Your task to perform on an android device: Go to network settings Image 0: 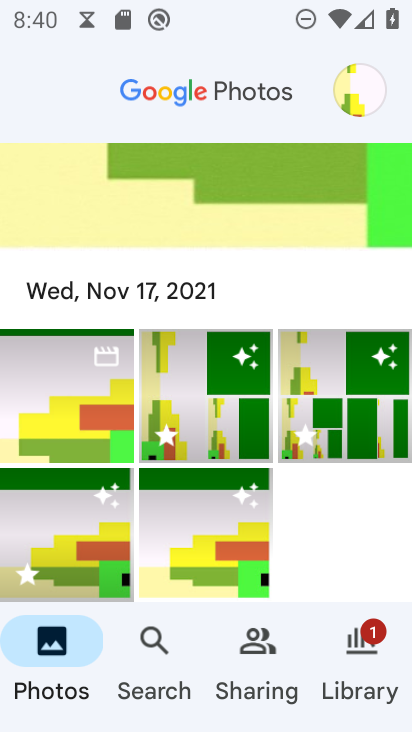
Step 0: press home button
Your task to perform on an android device: Go to network settings Image 1: 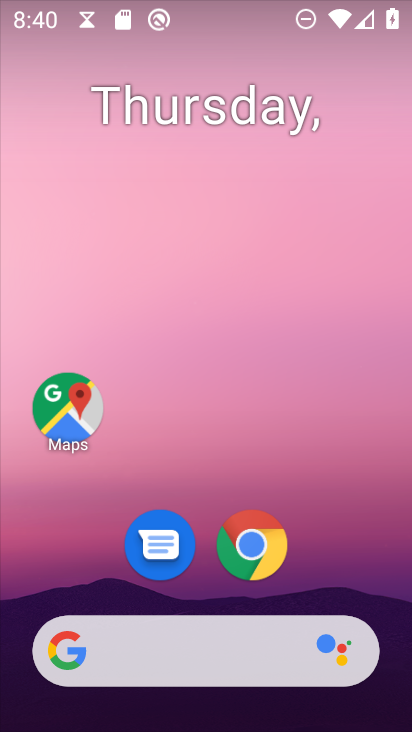
Step 1: drag from (332, 560) to (278, 145)
Your task to perform on an android device: Go to network settings Image 2: 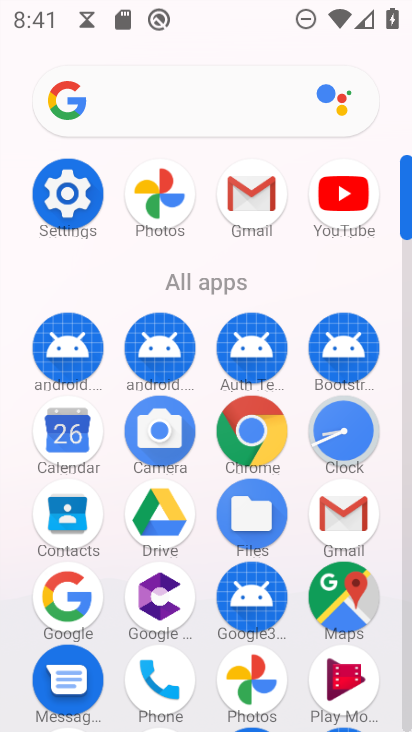
Step 2: click (69, 196)
Your task to perform on an android device: Go to network settings Image 3: 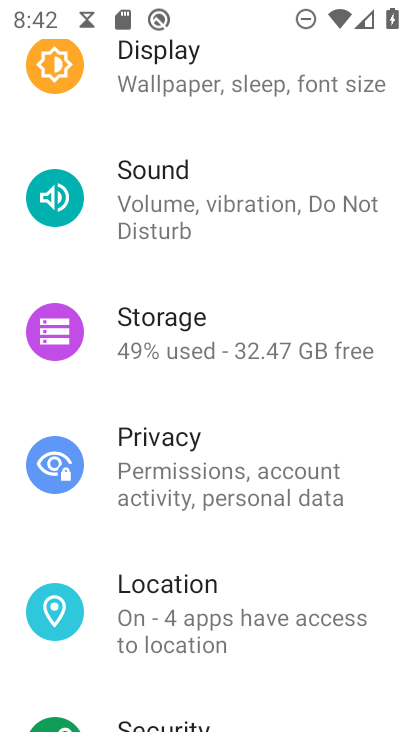
Step 3: drag from (217, 285) to (207, 403)
Your task to perform on an android device: Go to network settings Image 4: 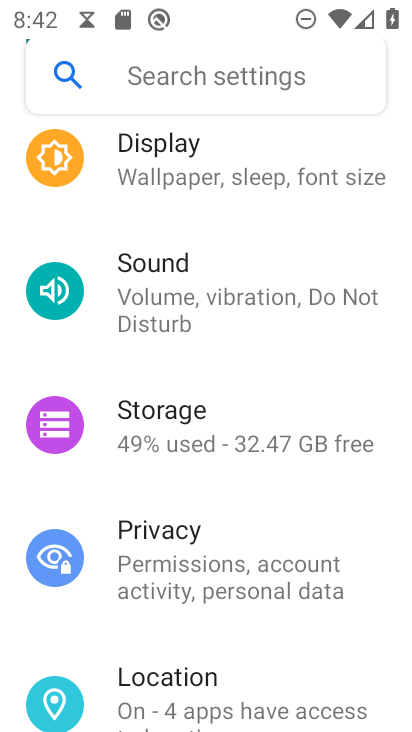
Step 4: drag from (234, 232) to (251, 389)
Your task to perform on an android device: Go to network settings Image 5: 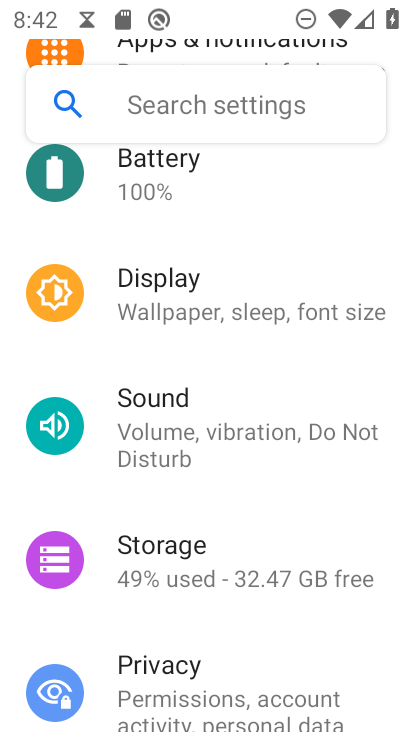
Step 5: drag from (256, 240) to (248, 445)
Your task to perform on an android device: Go to network settings Image 6: 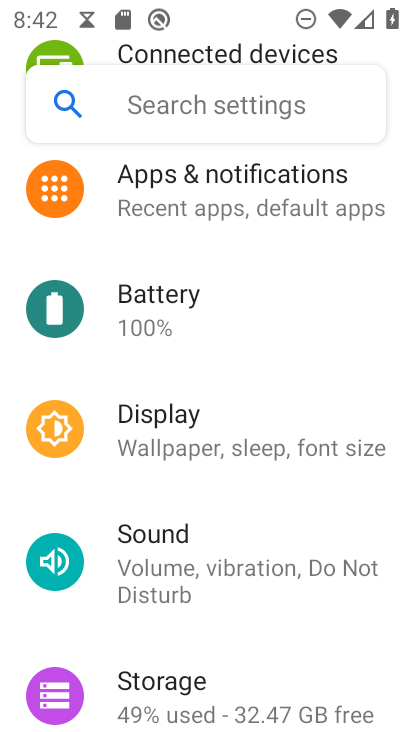
Step 6: drag from (257, 306) to (253, 462)
Your task to perform on an android device: Go to network settings Image 7: 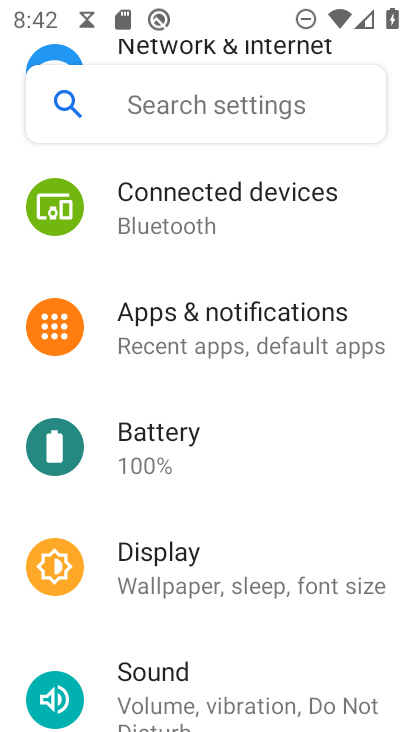
Step 7: drag from (272, 255) to (255, 397)
Your task to perform on an android device: Go to network settings Image 8: 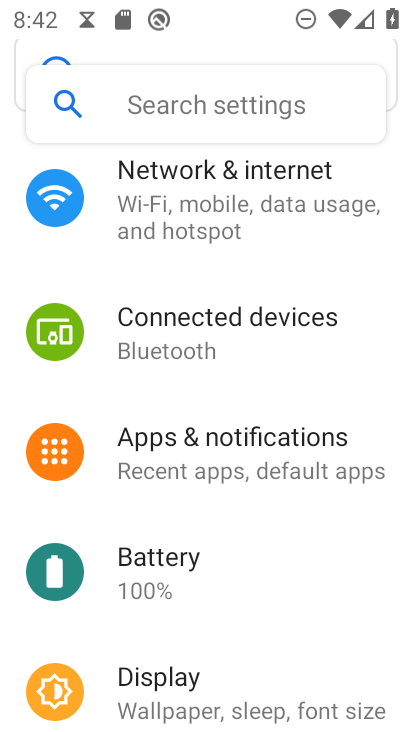
Step 8: drag from (268, 290) to (261, 411)
Your task to perform on an android device: Go to network settings Image 9: 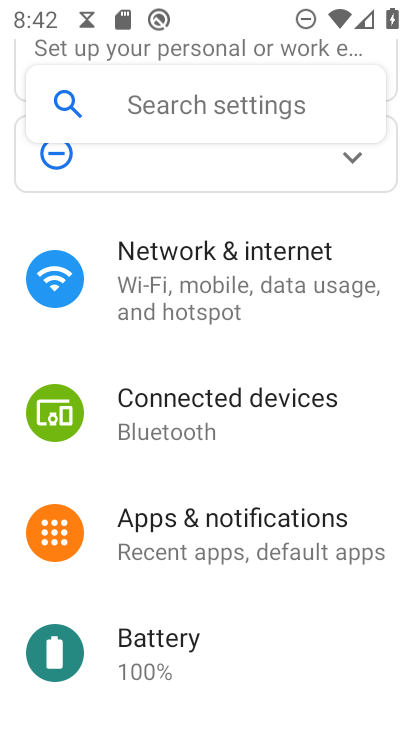
Step 9: click (263, 277)
Your task to perform on an android device: Go to network settings Image 10: 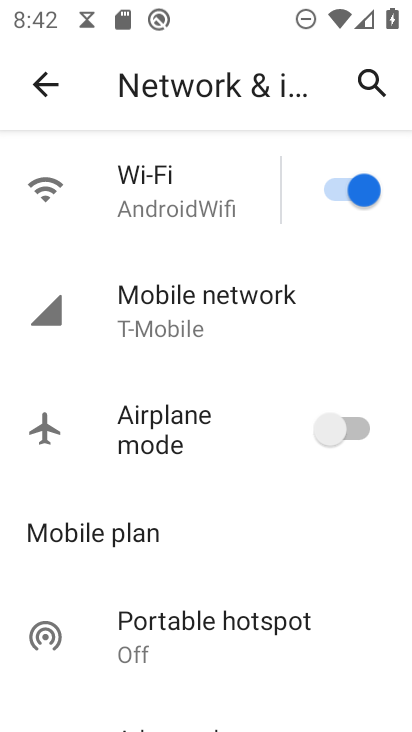
Step 10: click (258, 293)
Your task to perform on an android device: Go to network settings Image 11: 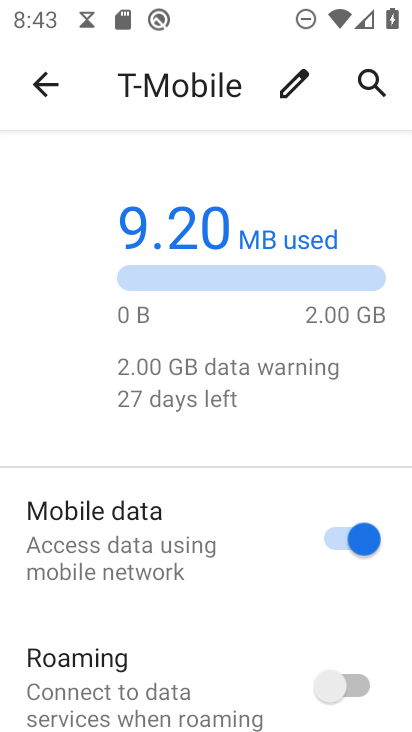
Step 11: task complete